Your task to perform on an android device: clear history in the chrome app Image 0: 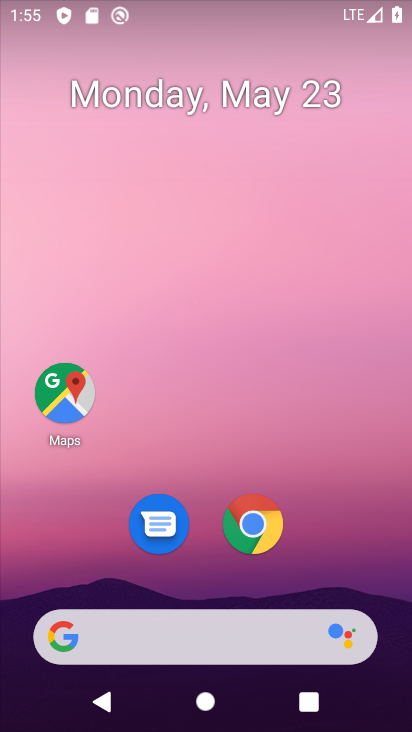
Step 0: click (267, 523)
Your task to perform on an android device: clear history in the chrome app Image 1: 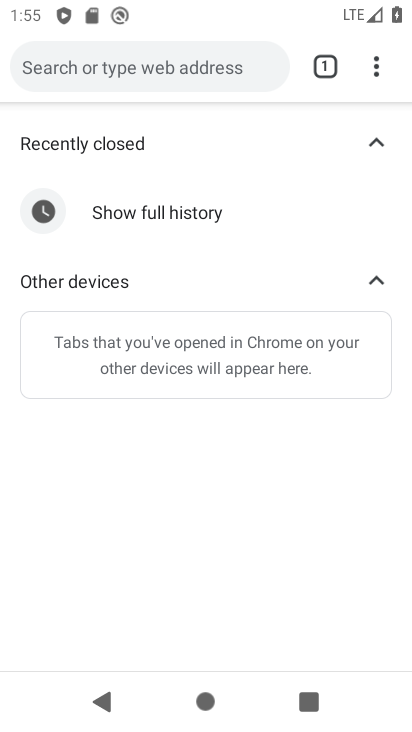
Step 1: click (373, 70)
Your task to perform on an android device: clear history in the chrome app Image 2: 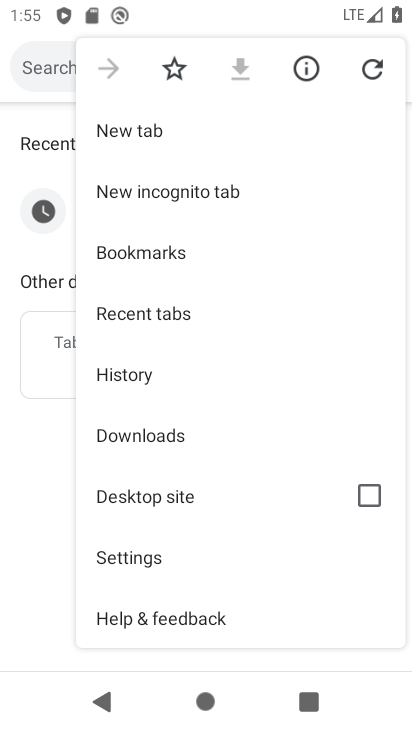
Step 2: click (145, 366)
Your task to perform on an android device: clear history in the chrome app Image 3: 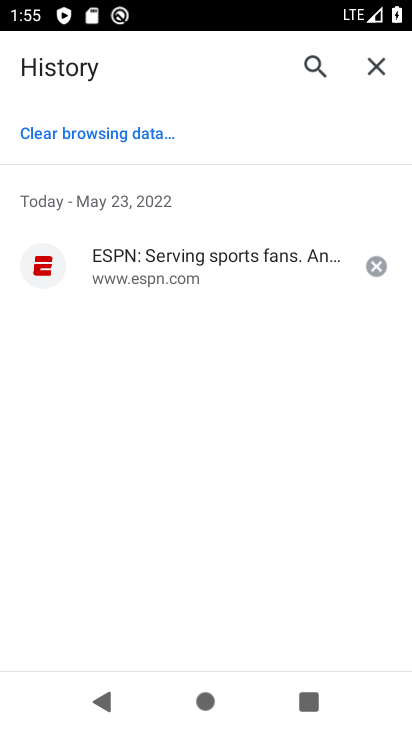
Step 3: click (114, 125)
Your task to perform on an android device: clear history in the chrome app Image 4: 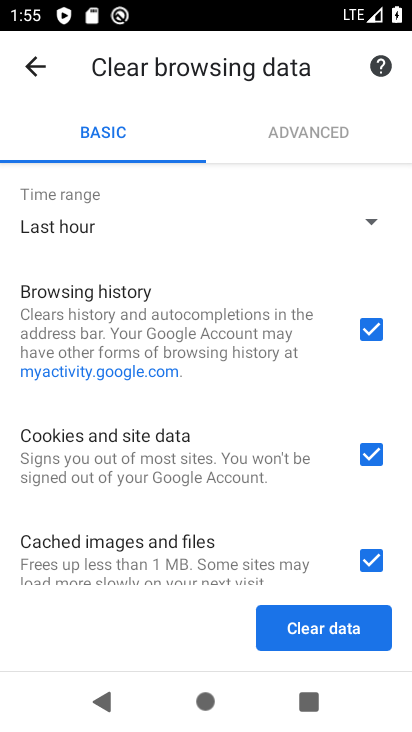
Step 4: click (322, 616)
Your task to perform on an android device: clear history in the chrome app Image 5: 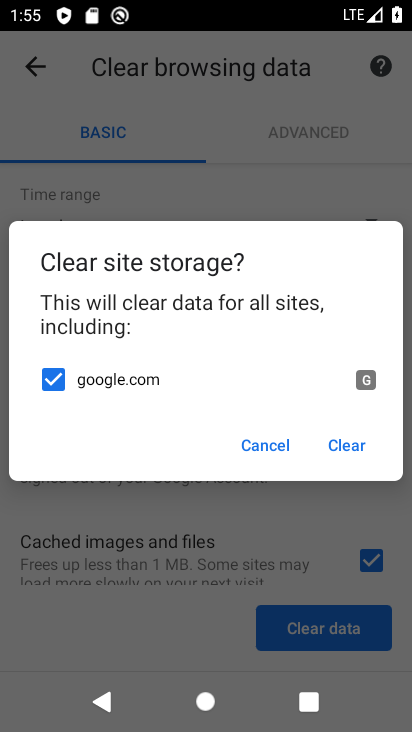
Step 5: click (343, 442)
Your task to perform on an android device: clear history in the chrome app Image 6: 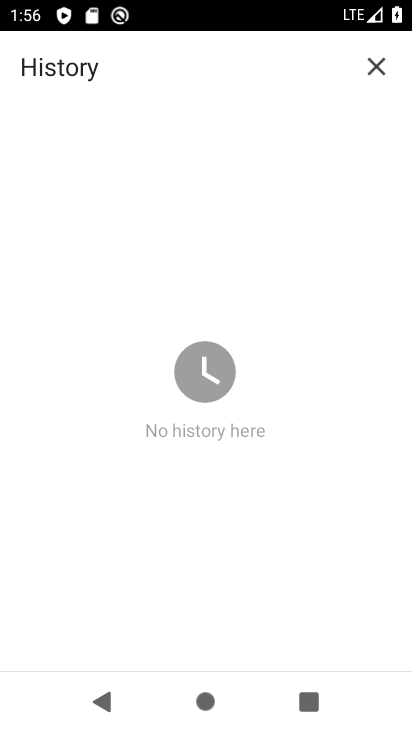
Step 6: task complete